Your task to perform on an android device: Add "macbook pro 13 inch" to the cart on newegg.com, then select checkout. Image 0: 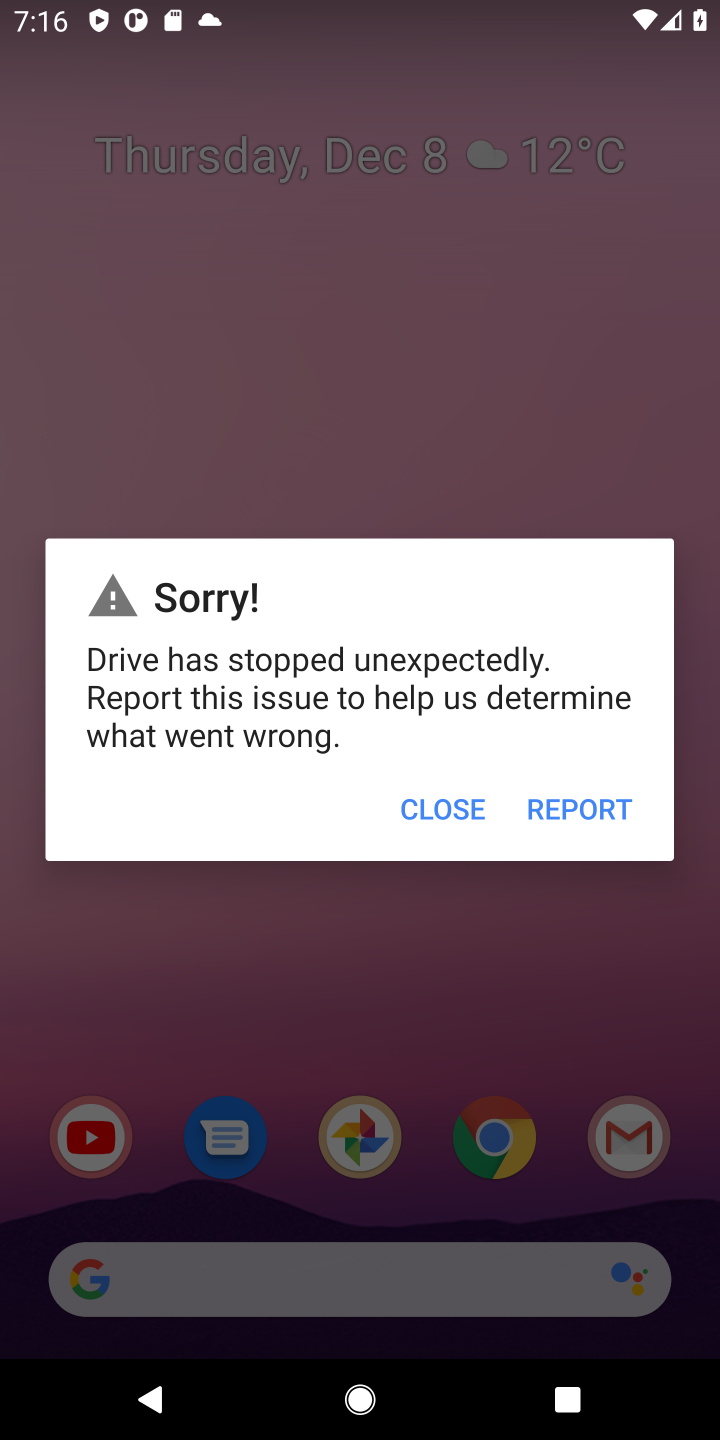
Step 0: click (443, 822)
Your task to perform on an android device: Add "macbook pro 13 inch" to the cart on newegg.com, then select checkout. Image 1: 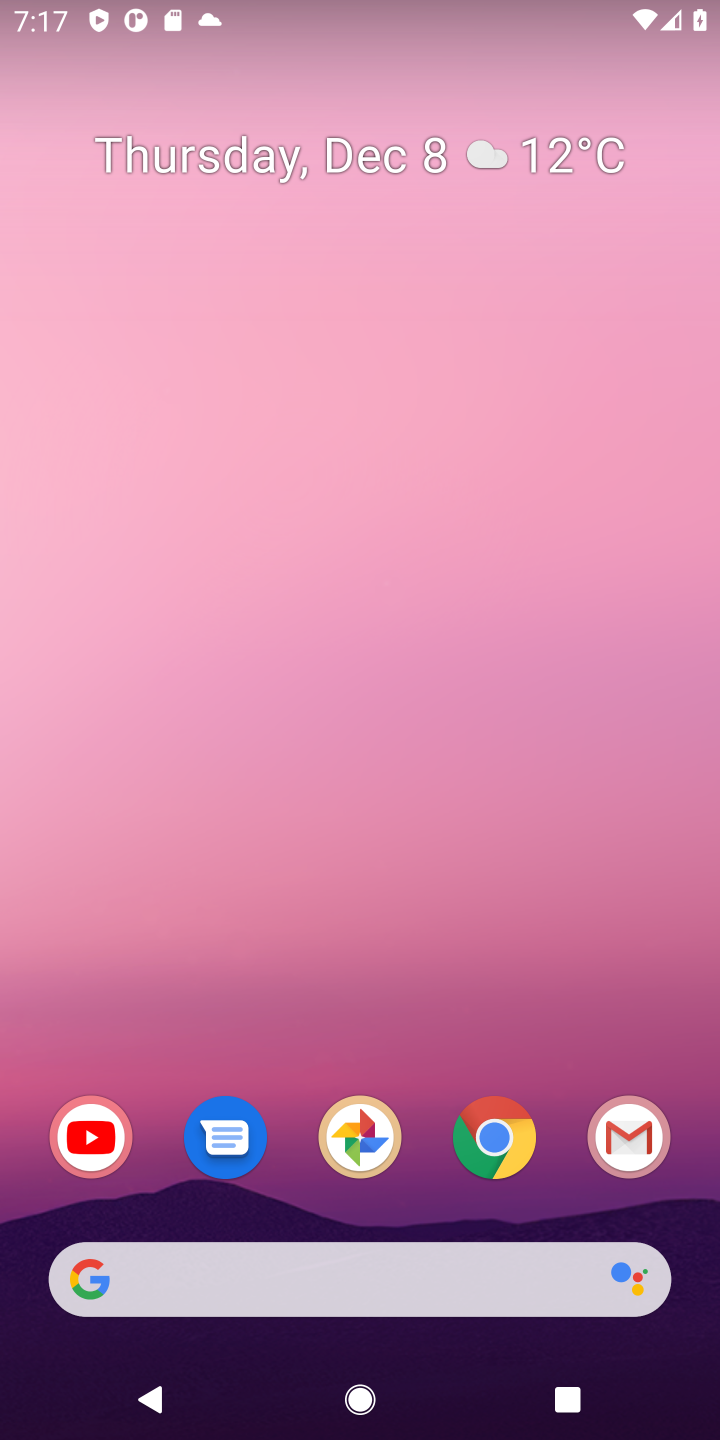
Step 1: click (491, 1165)
Your task to perform on an android device: Add "macbook pro 13 inch" to the cart on newegg.com, then select checkout. Image 2: 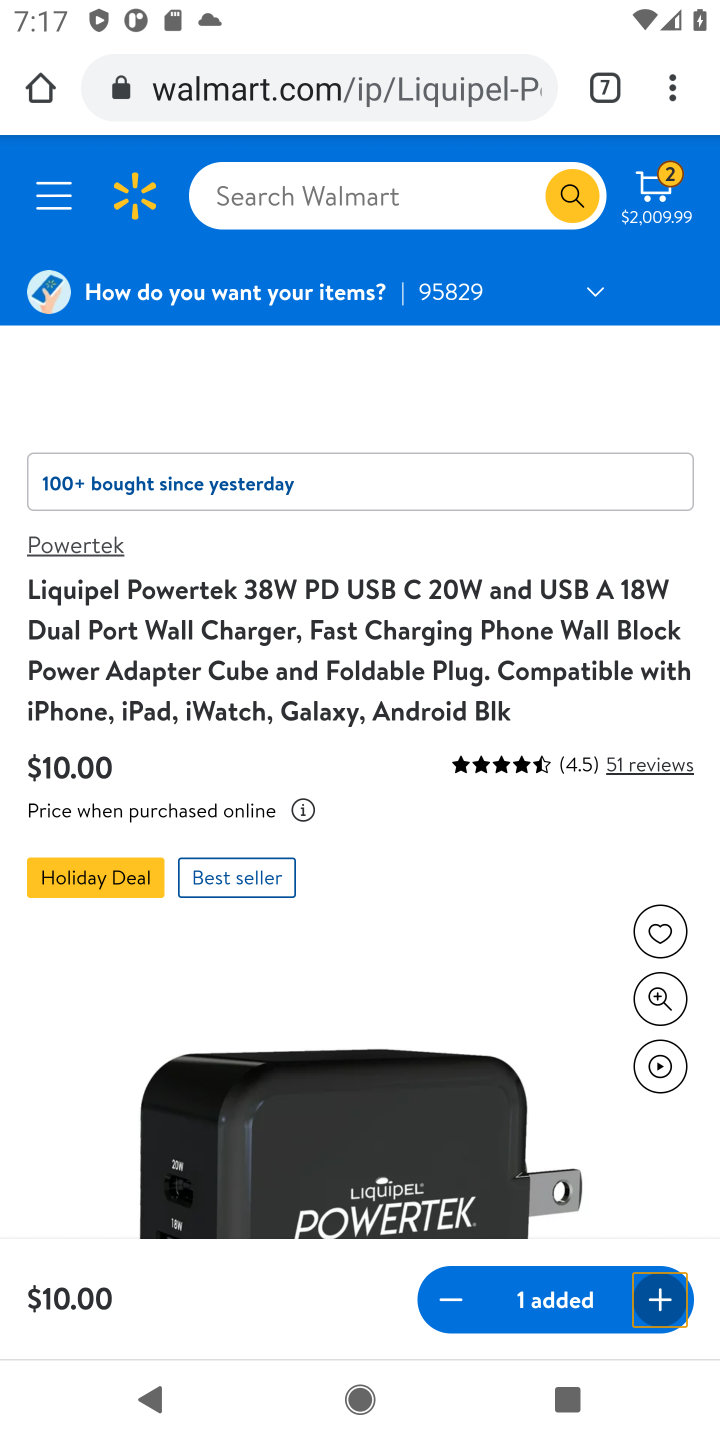
Step 2: click (603, 107)
Your task to perform on an android device: Add "macbook pro 13 inch" to the cart on newegg.com, then select checkout. Image 3: 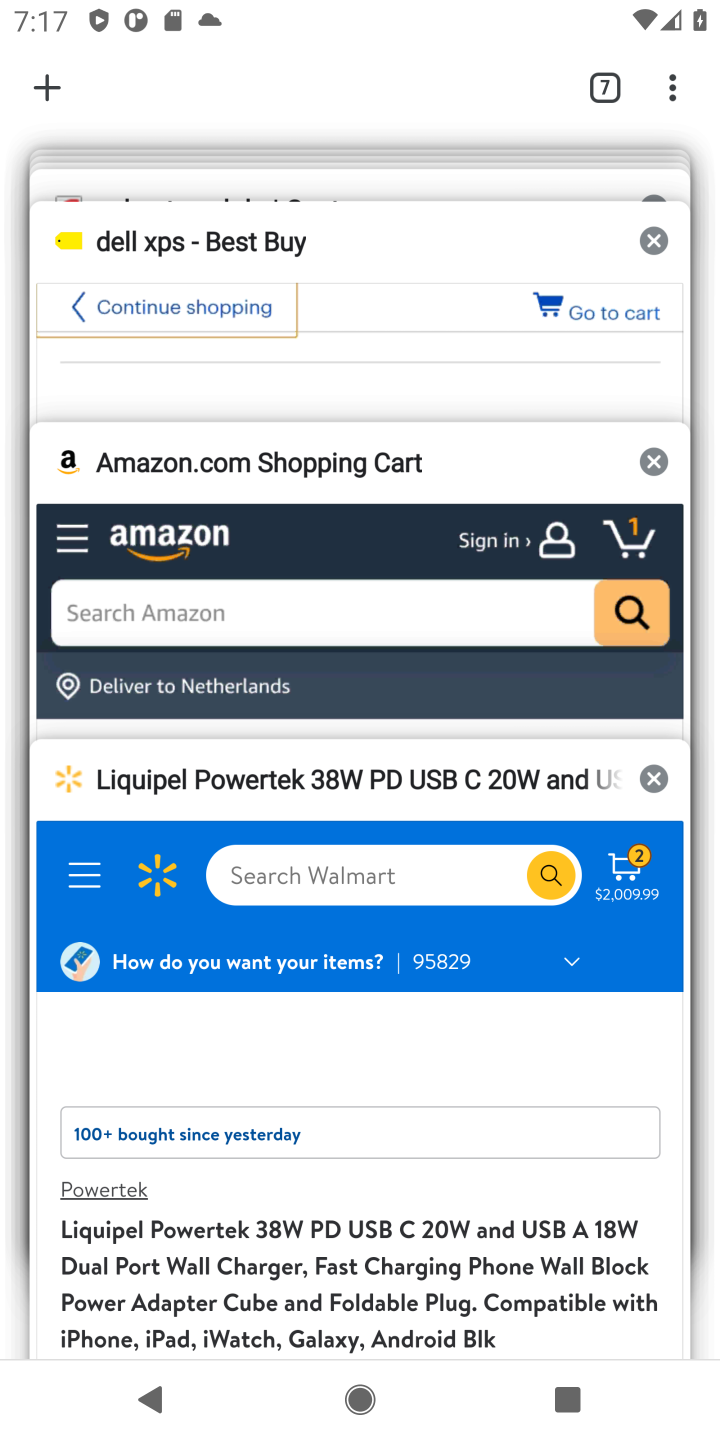
Step 3: drag from (386, 185) to (247, 594)
Your task to perform on an android device: Add "macbook pro 13 inch" to the cart on newegg.com, then select checkout. Image 4: 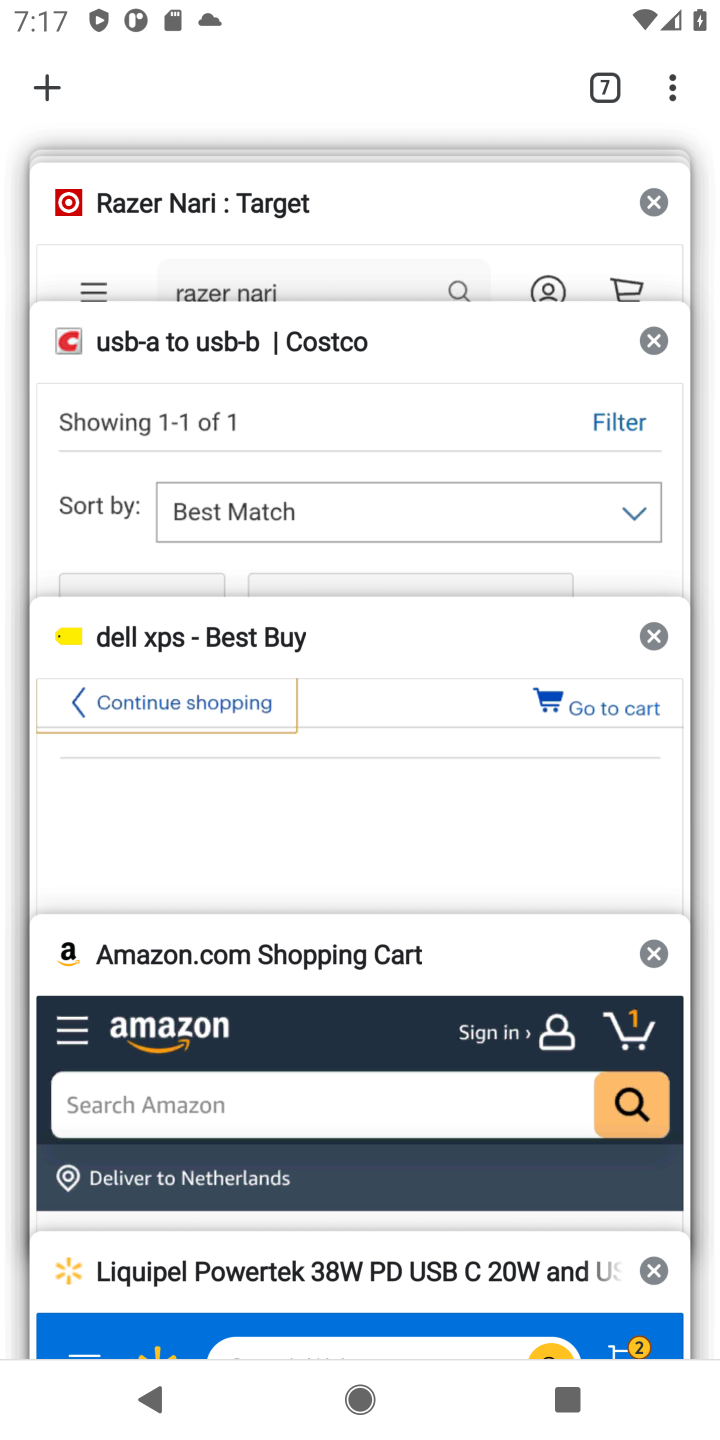
Step 4: drag from (397, 200) to (213, 745)
Your task to perform on an android device: Add "macbook pro 13 inch" to the cart on newegg.com, then select checkout. Image 5: 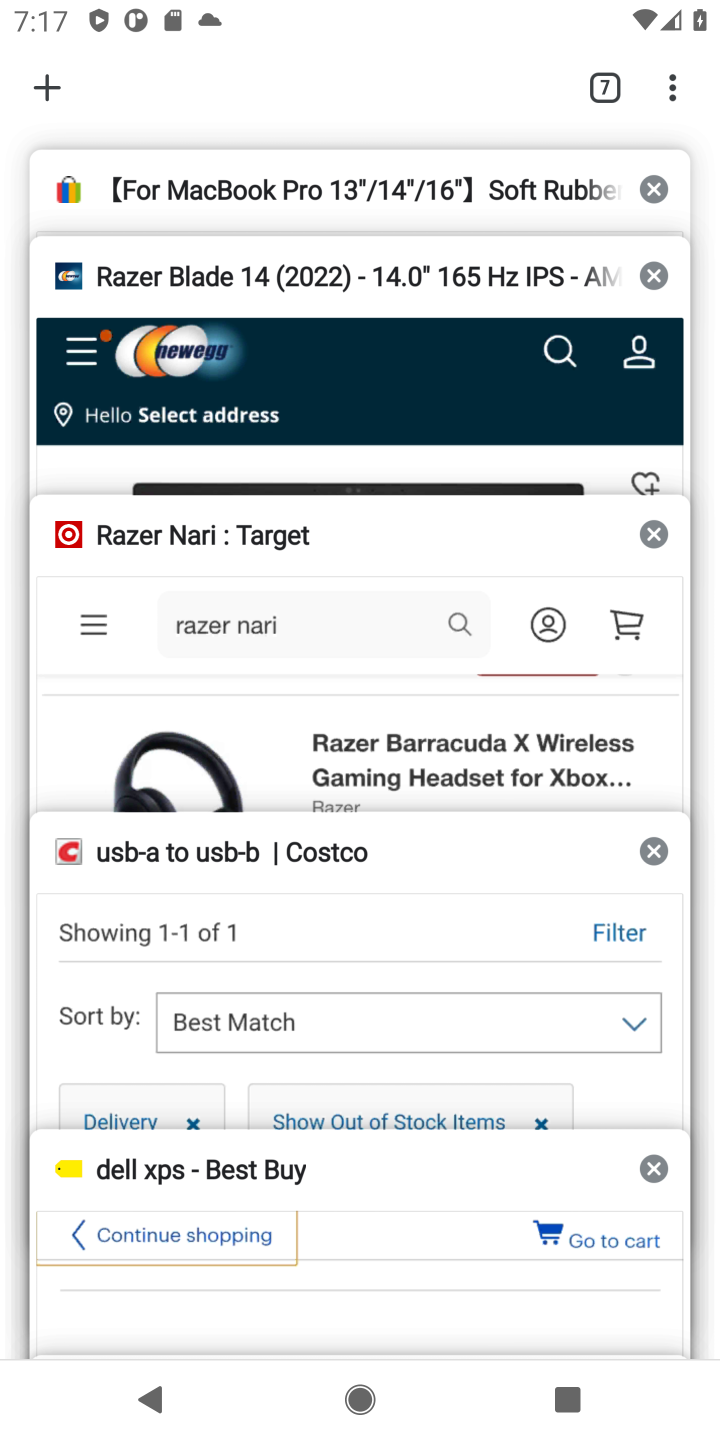
Step 5: click (255, 318)
Your task to perform on an android device: Add "macbook pro 13 inch" to the cart on newegg.com, then select checkout. Image 6: 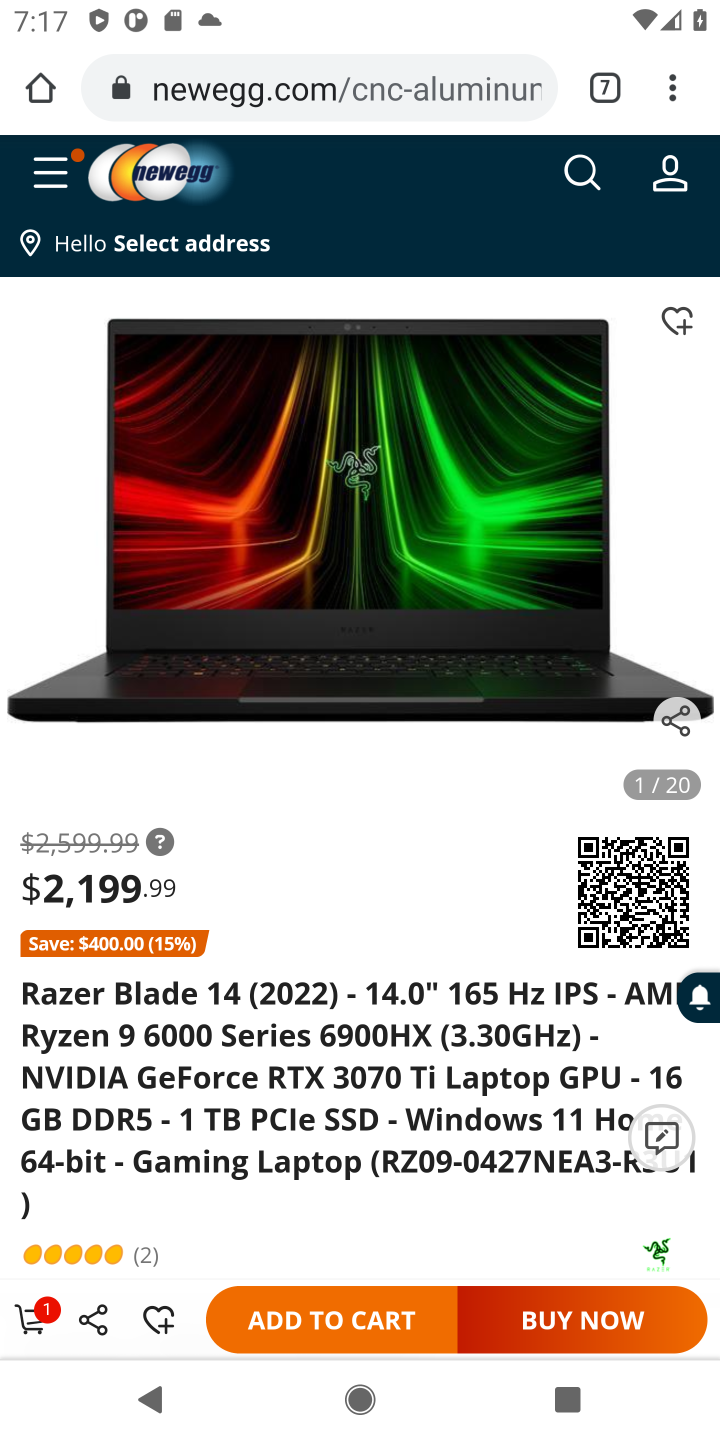
Step 6: click (583, 155)
Your task to perform on an android device: Add "macbook pro 13 inch" to the cart on newegg.com, then select checkout. Image 7: 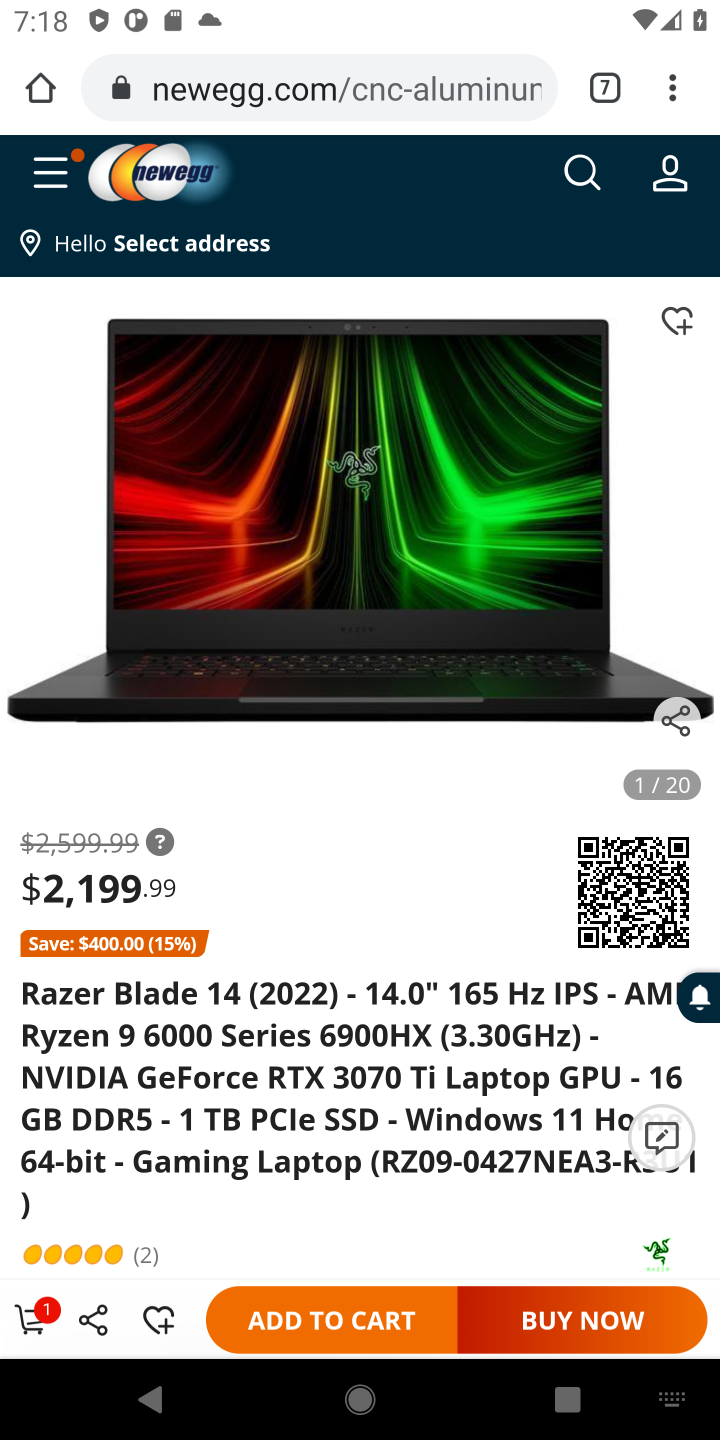
Step 7: type "macbook pro 13 inch"
Your task to perform on an android device: Add "macbook pro 13 inch" to the cart on newegg.com, then select checkout. Image 8: 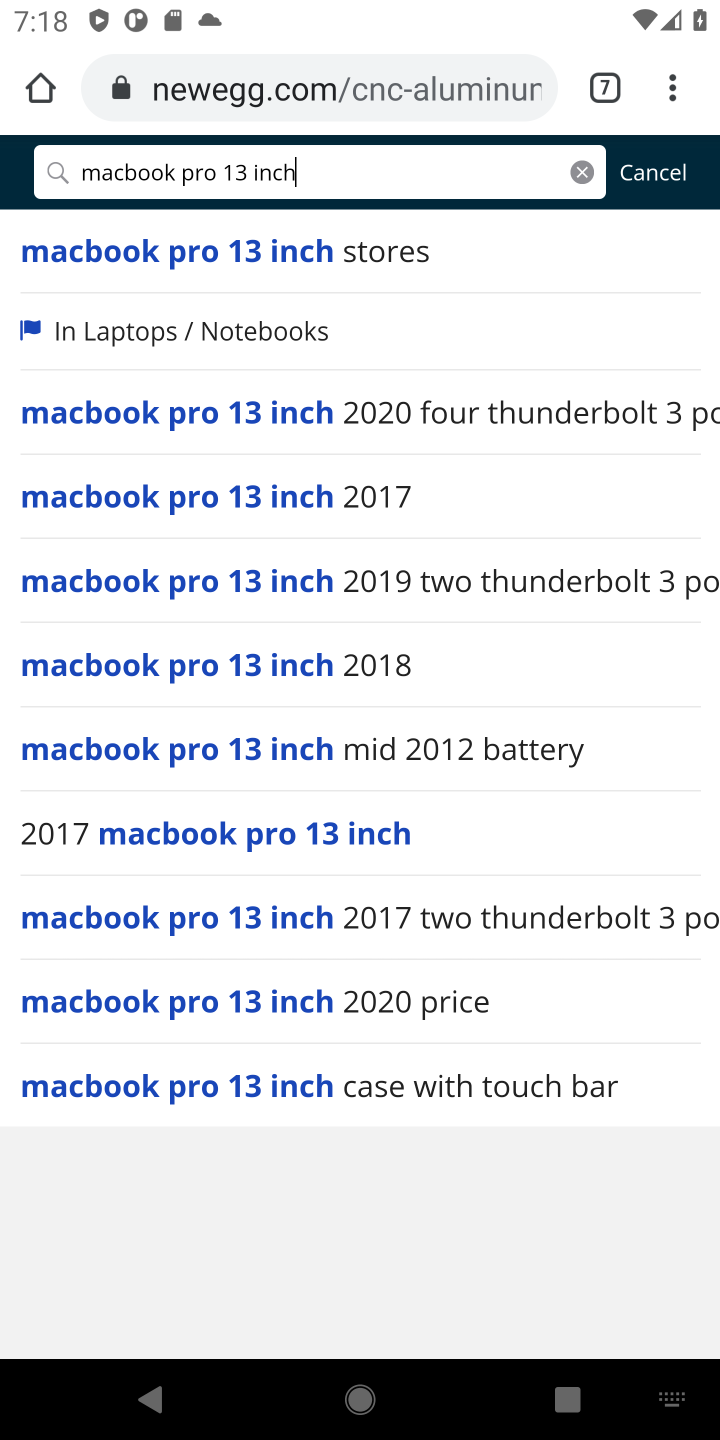
Step 8: click (205, 258)
Your task to perform on an android device: Add "macbook pro 13 inch" to the cart on newegg.com, then select checkout. Image 9: 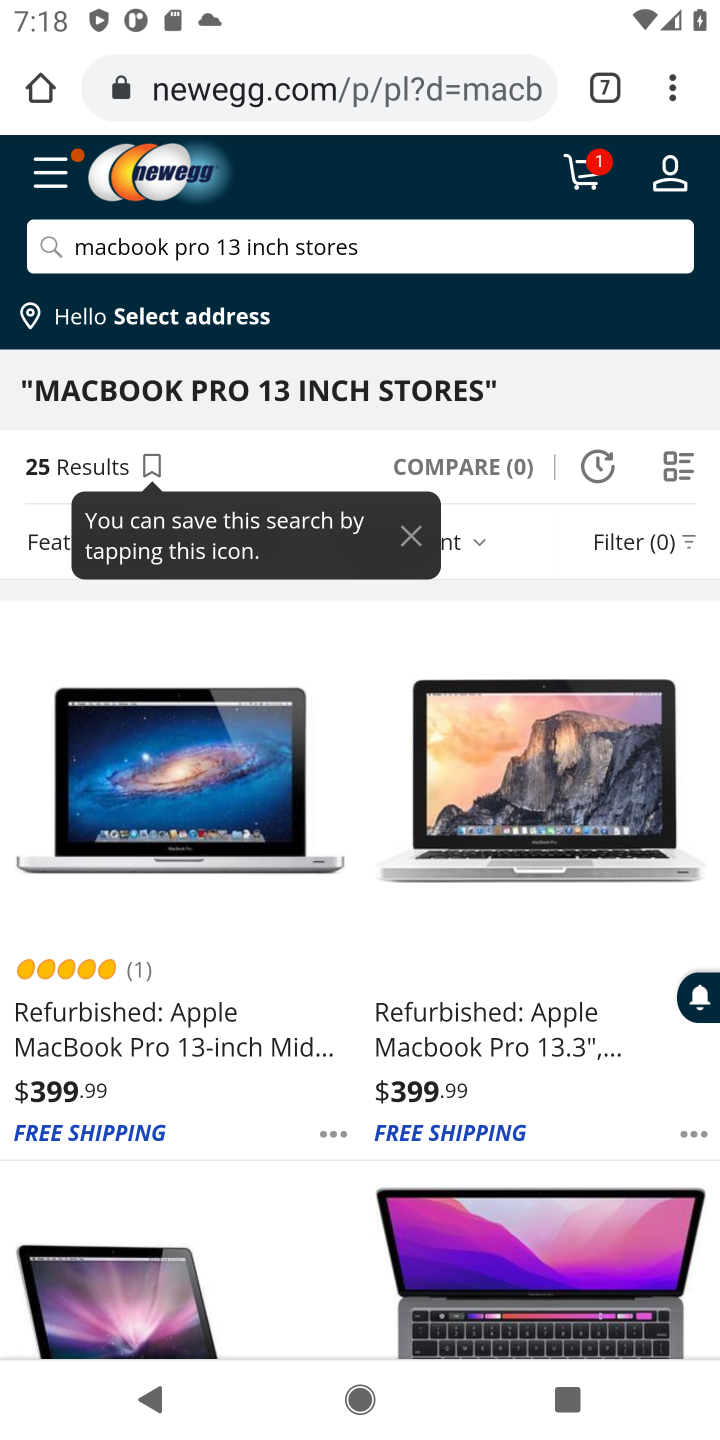
Step 9: click (120, 1033)
Your task to perform on an android device: Add "macbook pro 13 inch" to the cart on newegg.com, then select checkout. Image 10: 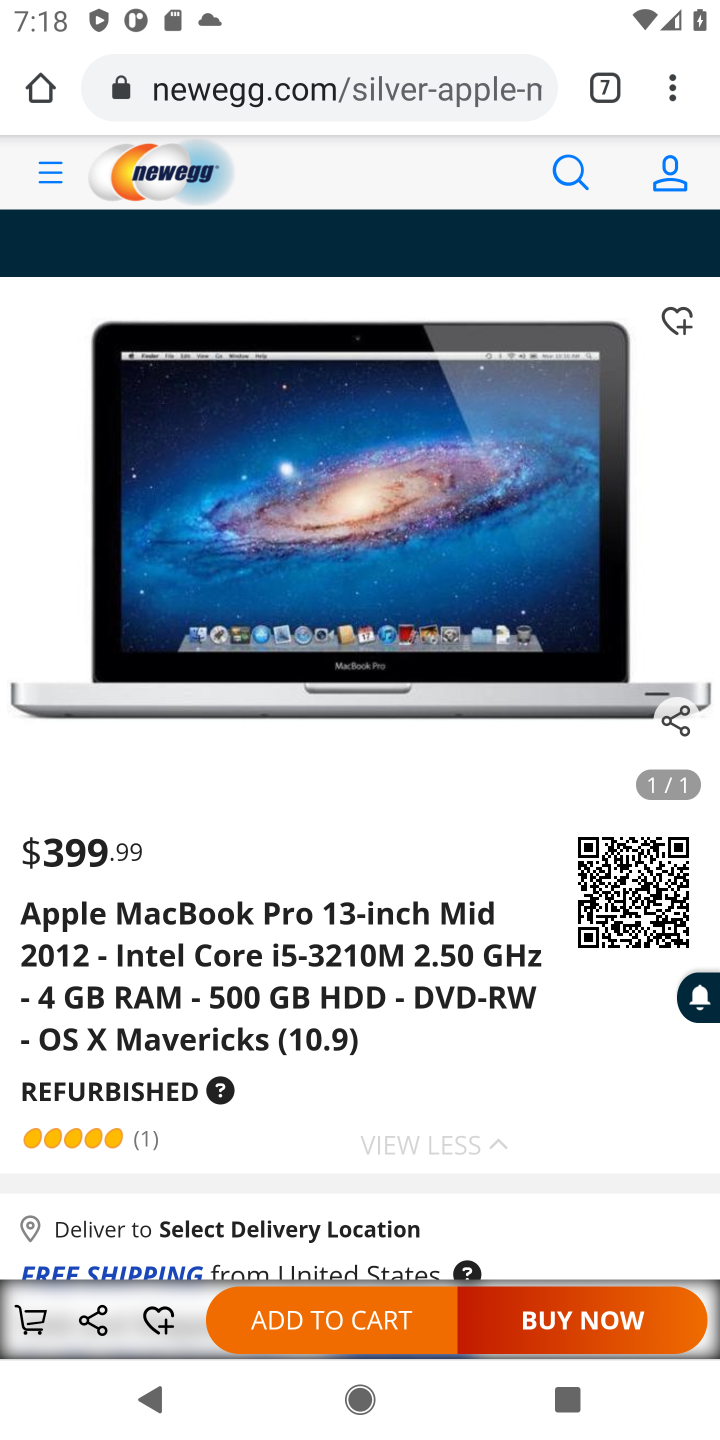
Step 10: click (359, 1319)
Your task to perform on an android device: Add "macbook pro 13 inch" to the cart on newegg.com, then select checkout. Image 11: 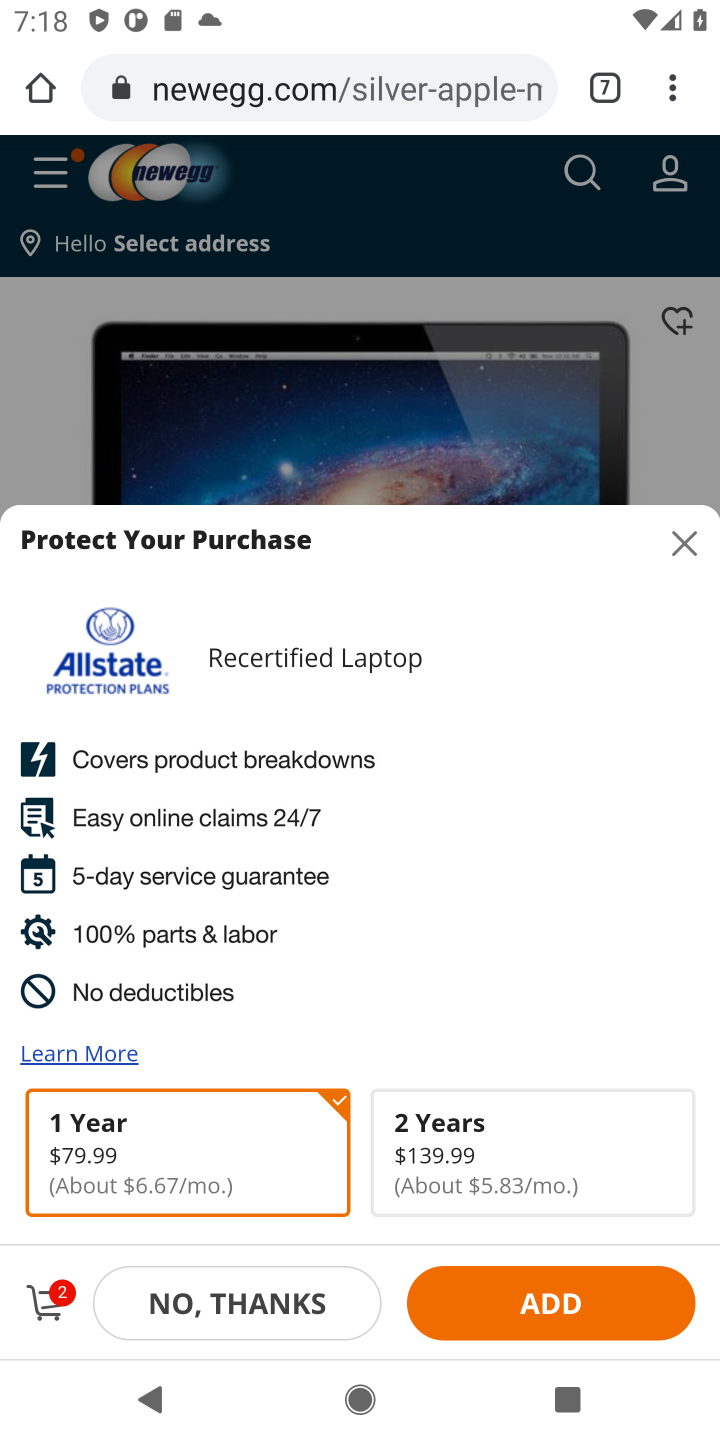
Step 11: click (58, 1314)
Your task to perform on an android device: Add "macbook pro 13 inch" to the cart on newegg.com, then select checkout. Image 12: 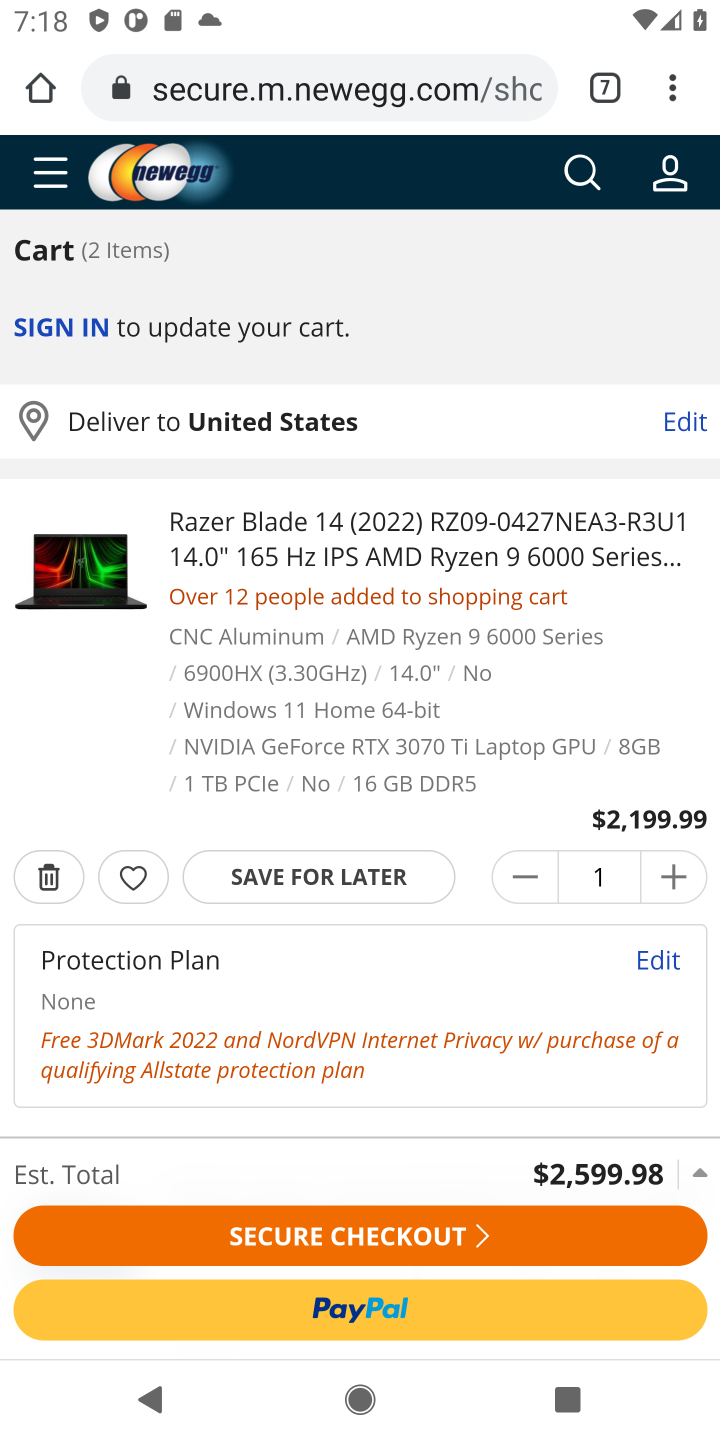
Step 12: click (287, 1305)
Your task to perform on an android device: Add "macbook pro 13 inch" to the cart on newegg.com, then select checkout. Image 13: 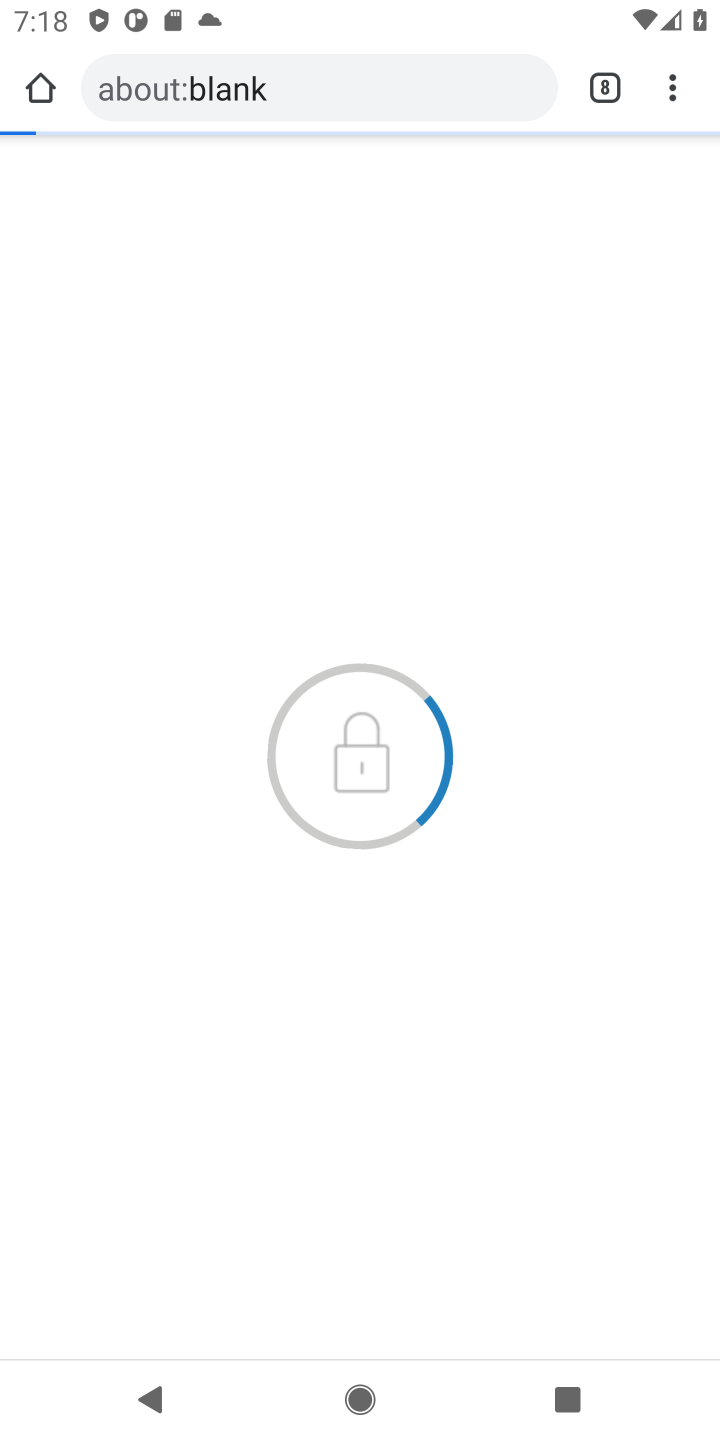
Step 13: press back button
Your task to perform on an android device: Add "macbook pro 13 inch" to the cart on newegg.com, then select checkout. Image 14: 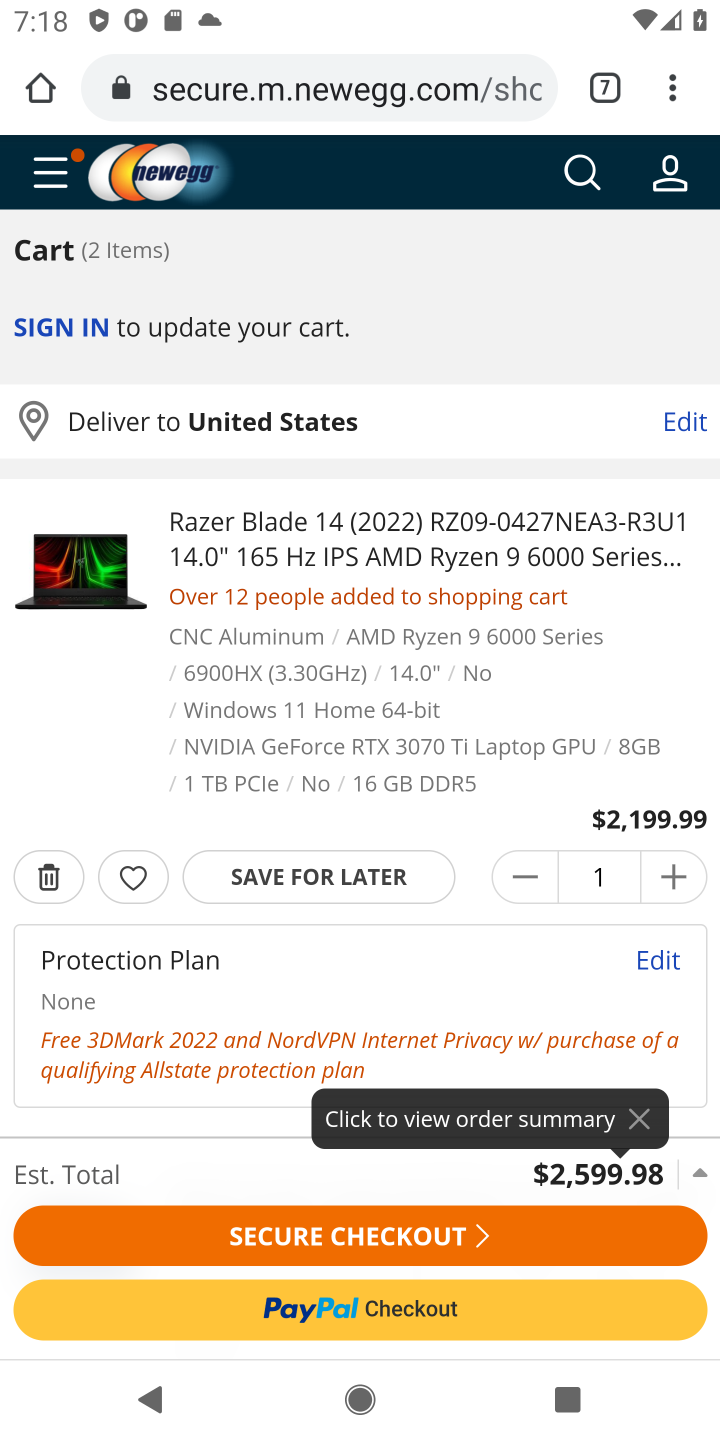
Step 14: click (351, 1234)
Your task to perform on an android device: Add "macbook pro 13 inch" to the cart on newegg.com, then select checkout. Image 15: 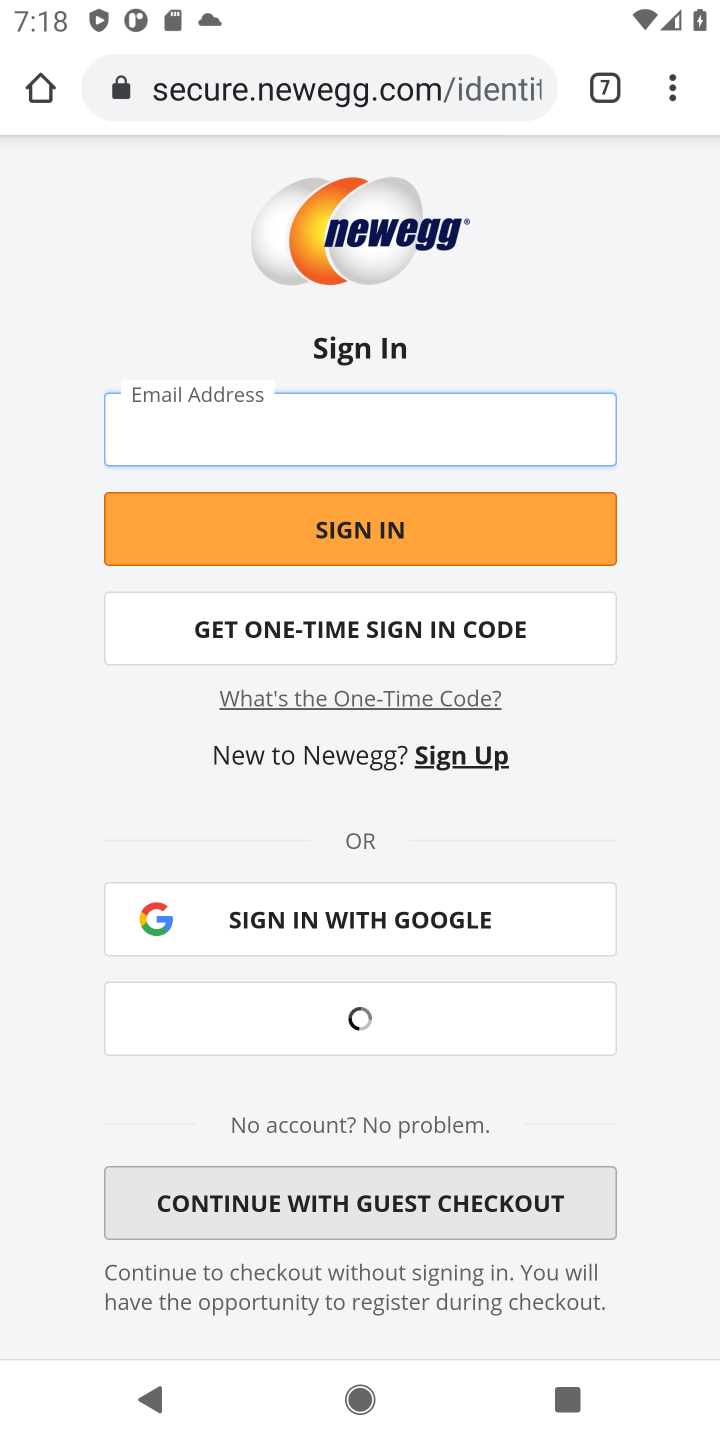
Step 15: task complete